Your task to perform on an android device: Open Google Chrome Image 0: 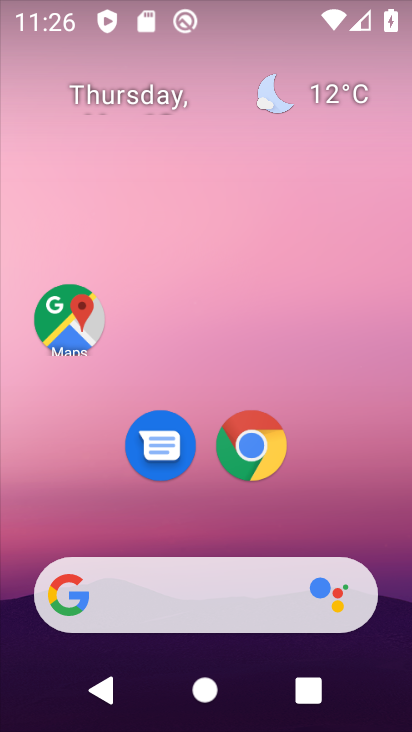
Step 0: click (232, 450)
Your task to perform on an android device: Open Google Chrome Image 1: 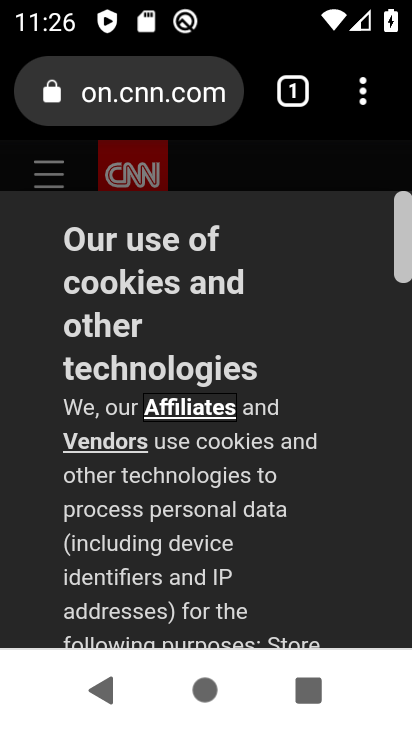
Step 1: task complete